Your task to perform on an android device: Open Google Maps Image 0: 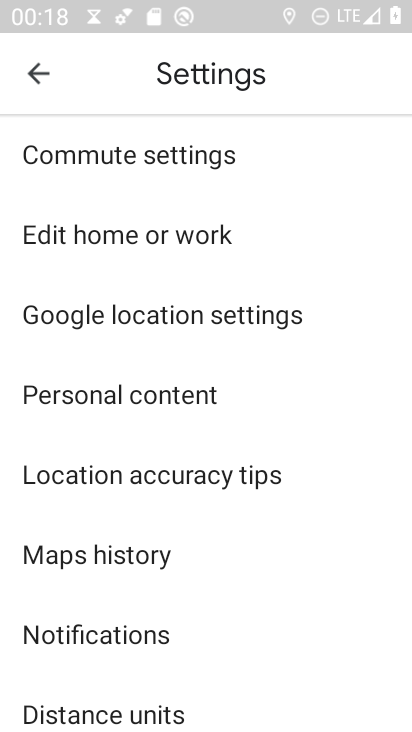
Step 0: press home button
Your task to perform on an android device: Open Google Maps Image 1: 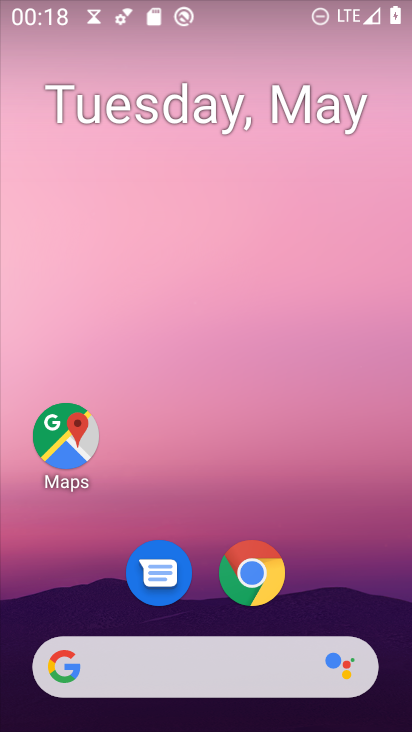
Step 1: click (47, 446)
Your task to perform on an android device: Open Google Maps Image 2: 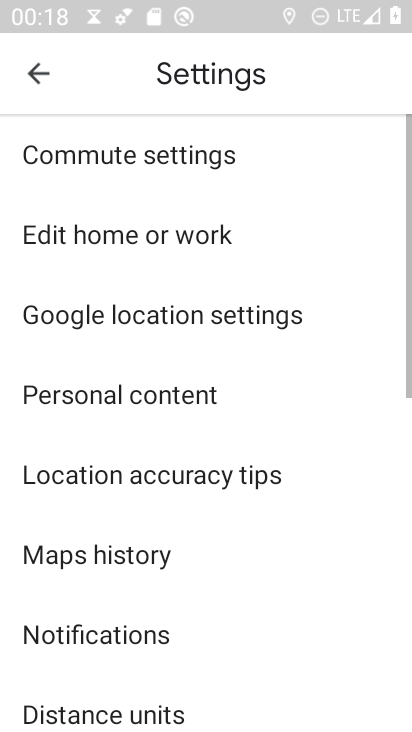
Step 2: press home button
Your task to perform on an android device: Open Google Maps Image 3: 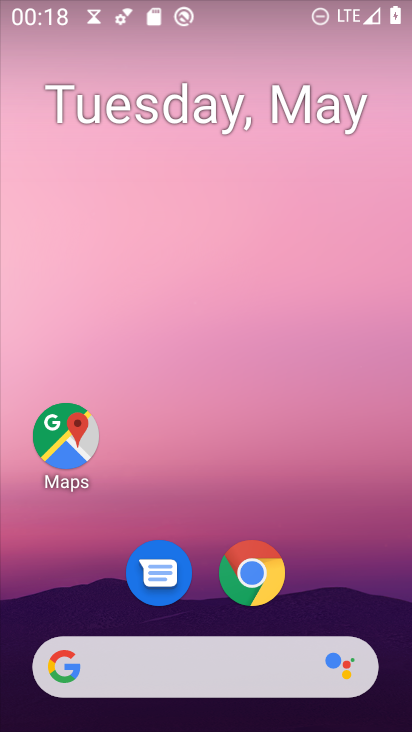
Step 3: click (42, 445)
Your task to perform on an android device: Open Google Maps Image 4: 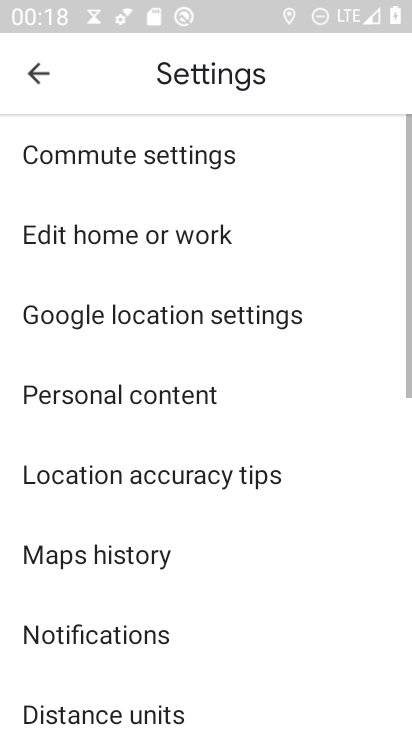
Step 4: click (56, 74)
Your task to perform on an android device: Open Google Maps Image 5: 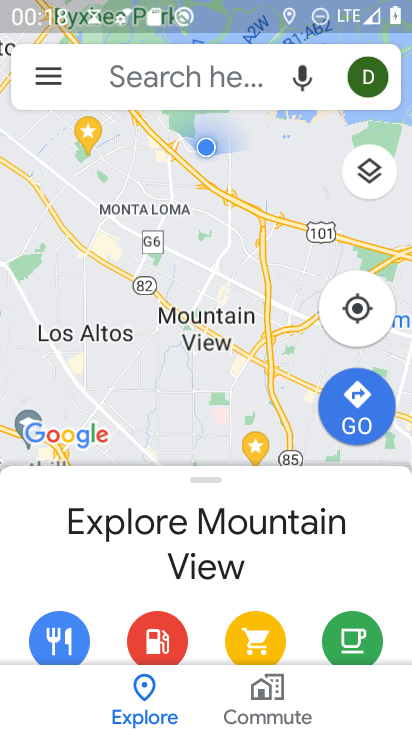
Step 5: task complete